Your task to perform on an android device: open app "Facebook Lite" (install if not already installed) Image 0: 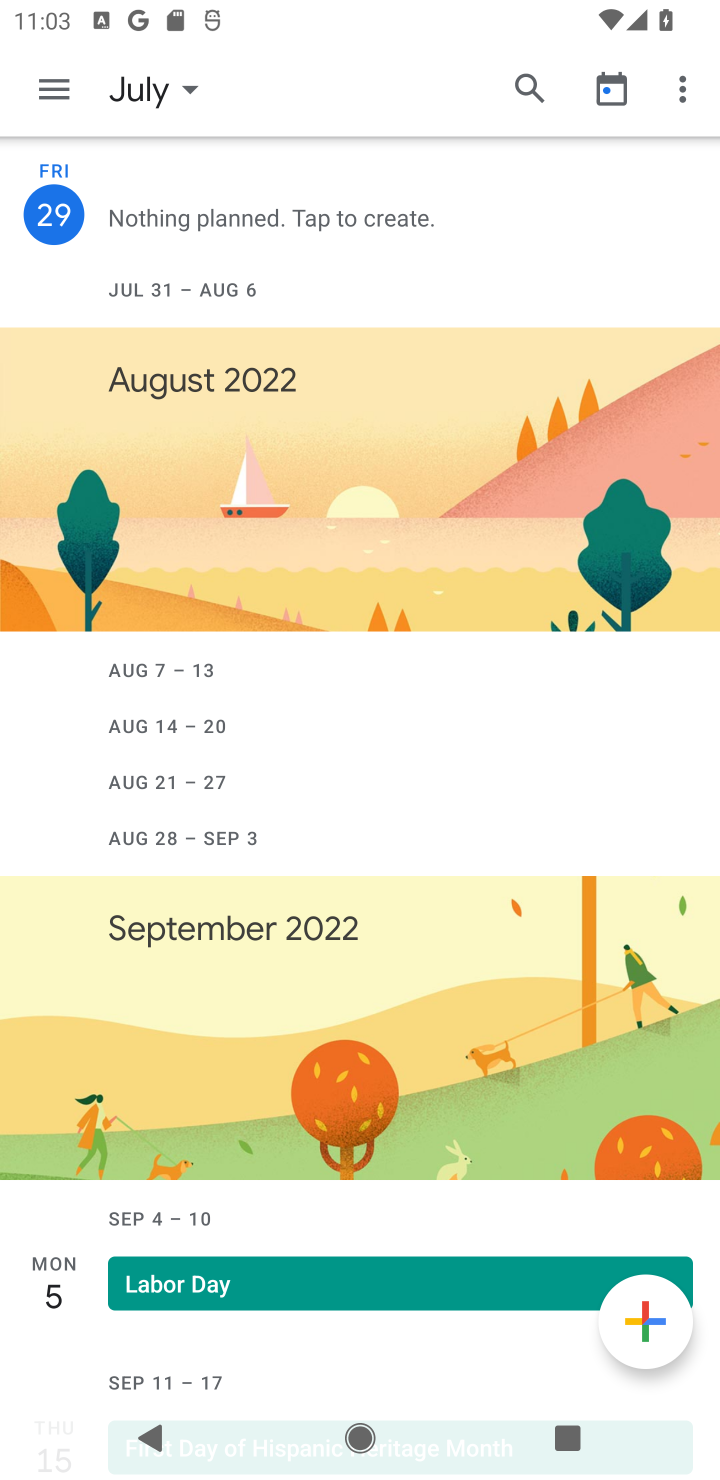
Step 0: press back button
Your task to perform on an android device: open app "Facebook Lite" (install if not already installed) Image 1: 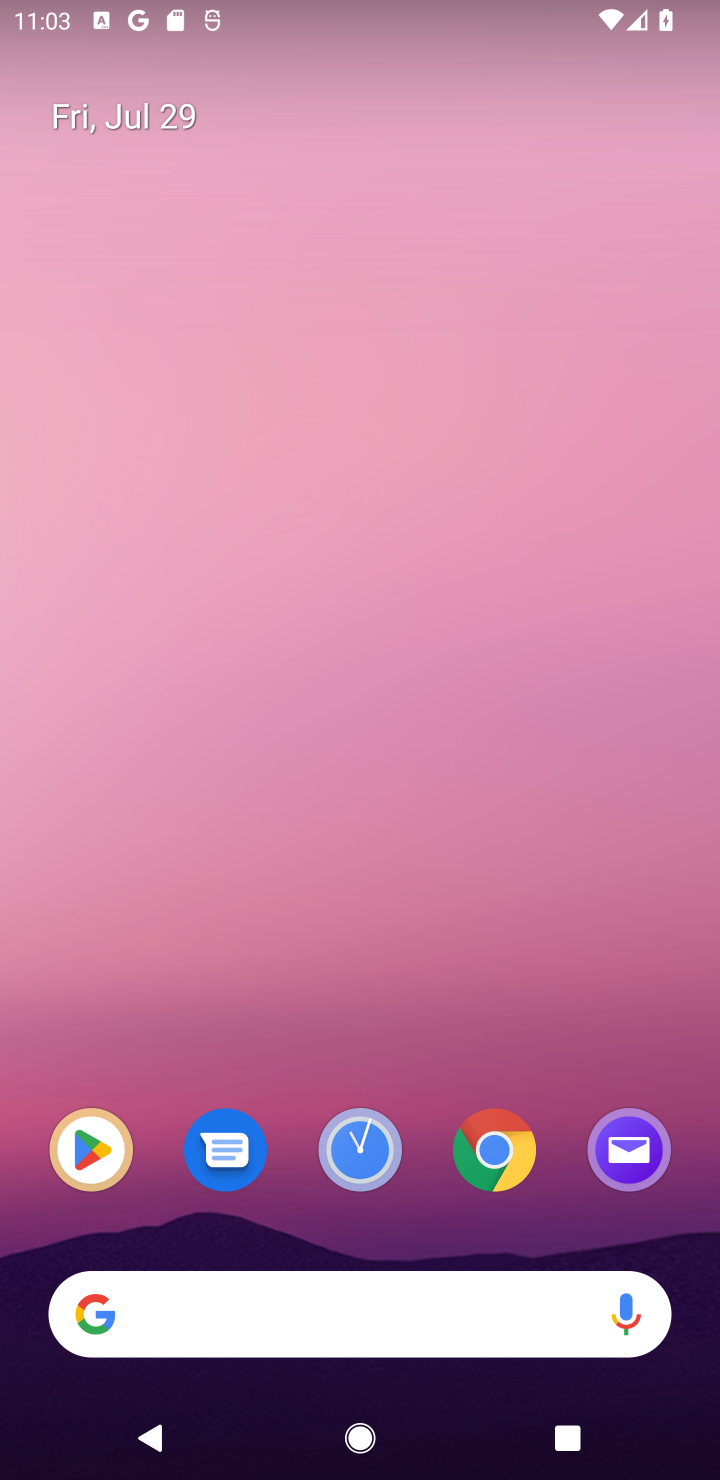
Step 1: drag from (516, 938) to (689, 58)
Your task to perform on an android device: open app "Facebook Lite" (install if not already installed) Image 2: 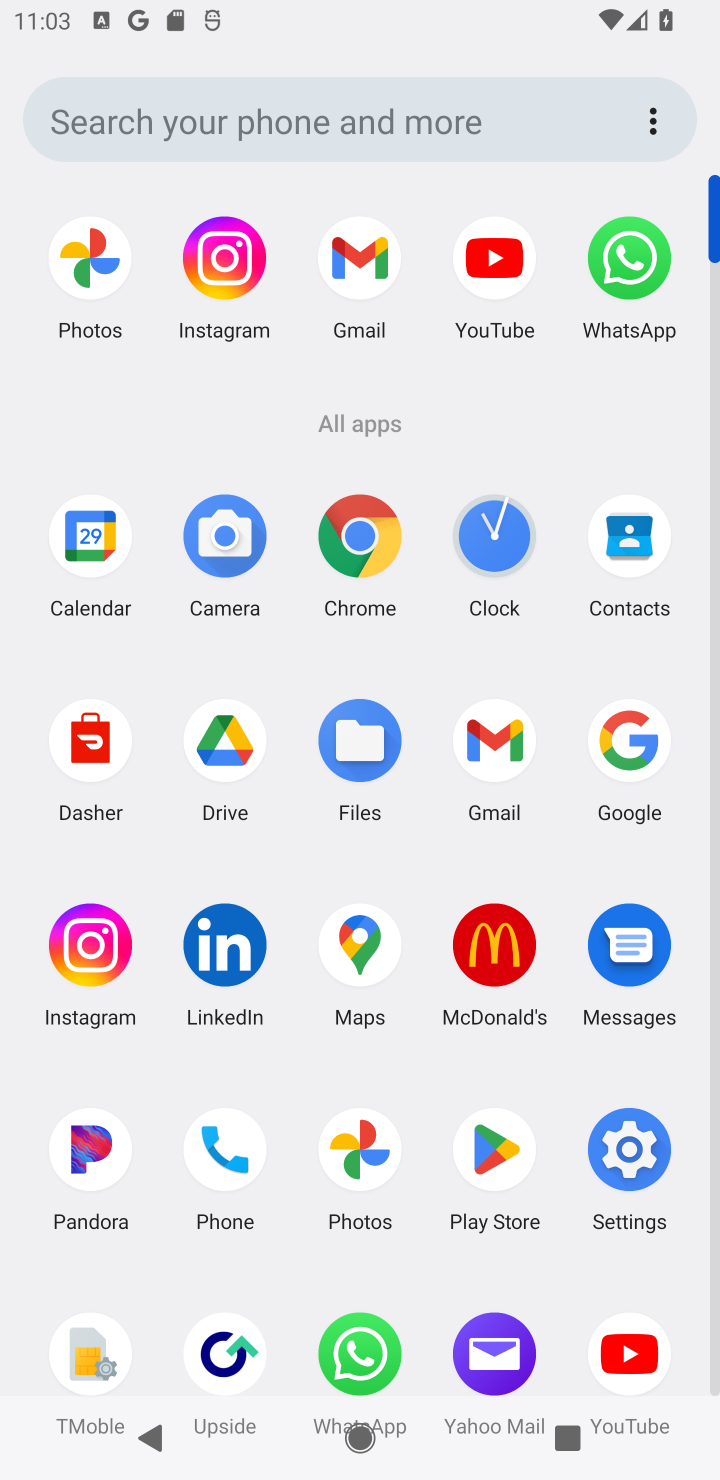
Step 2: drag from (338, 1113) to (545, 148)
Your task to perform on an android device: open app "Facebook Lite" (install if not already installed) Image 3: 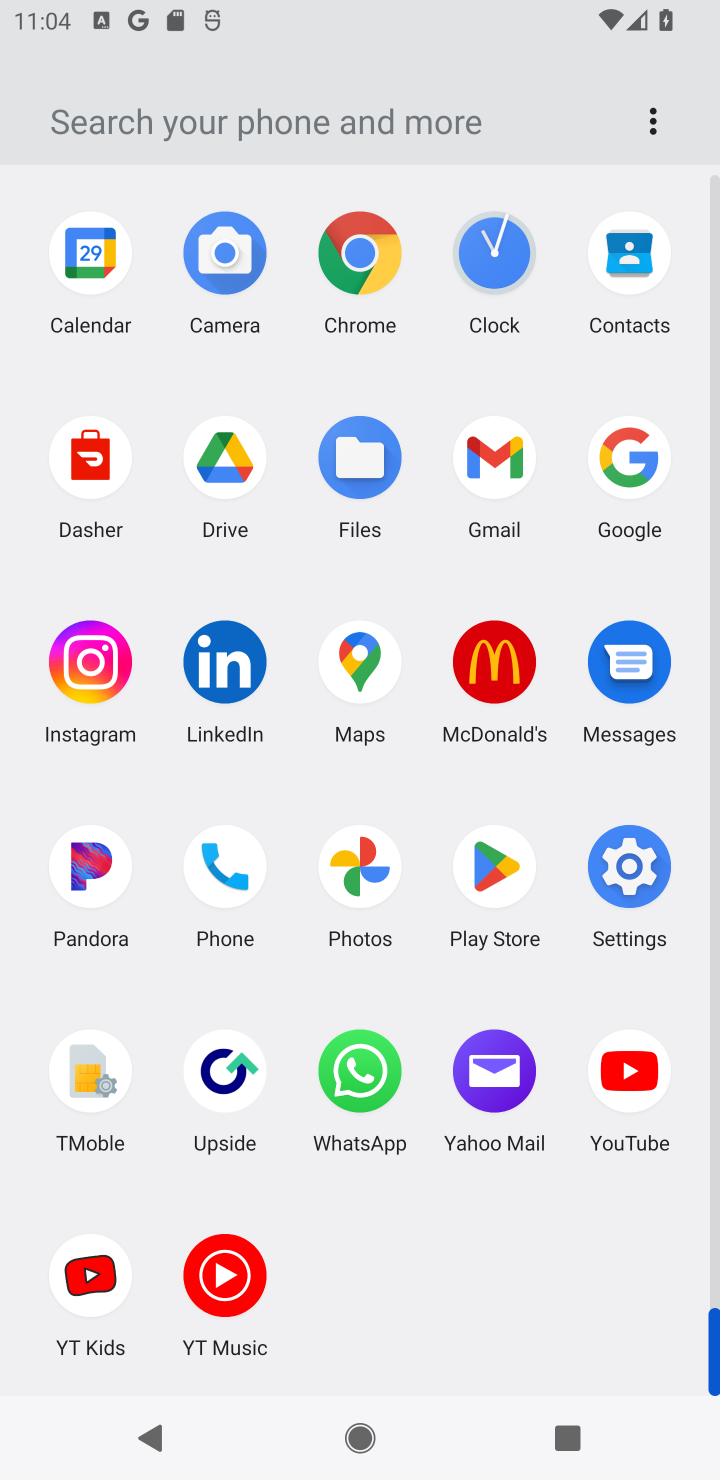
Step 3: click (497, 884)
Your task to perform on an android device: open app "Facebook Lite" (install if not already installed) Image 4: 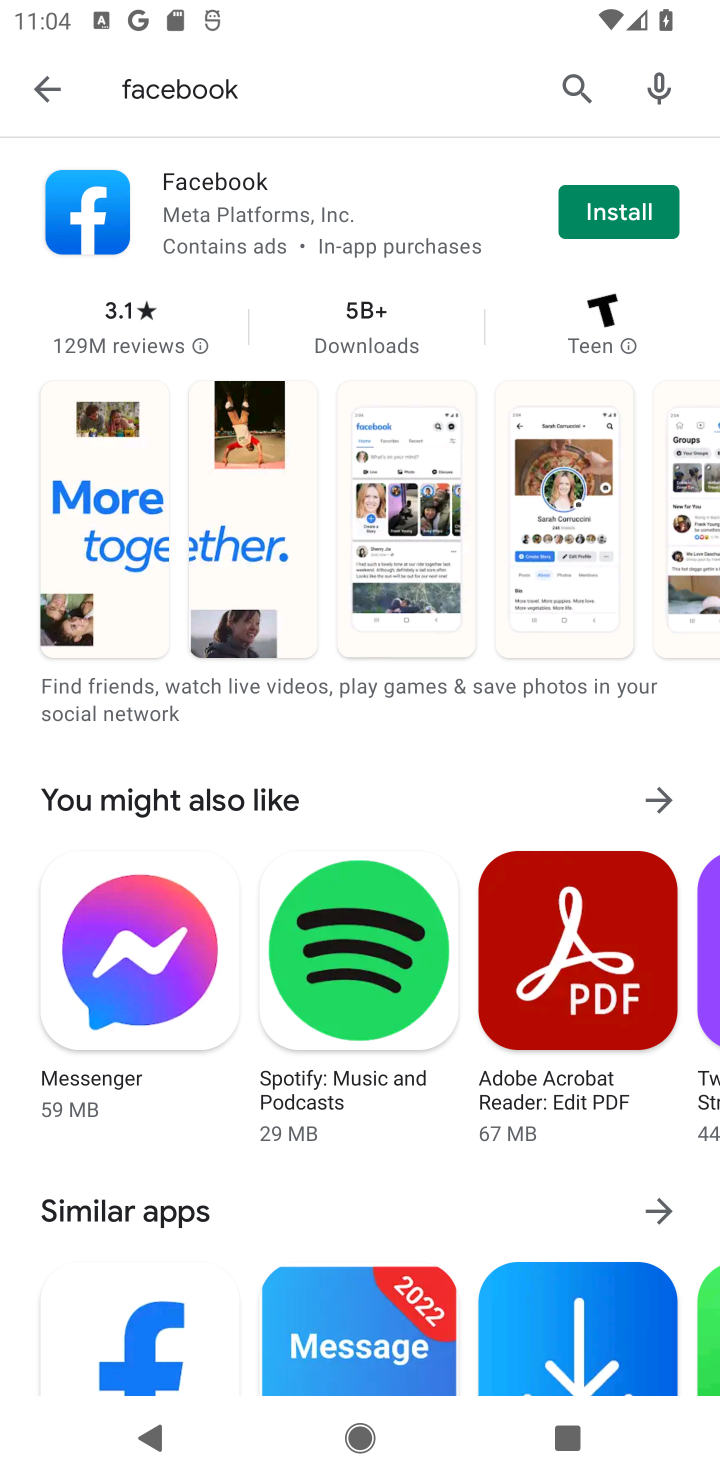
Step 4: click (602, 206)
Your task to perform on an android device: open app "Facebook Lite" (install if not already installed) Image 5: 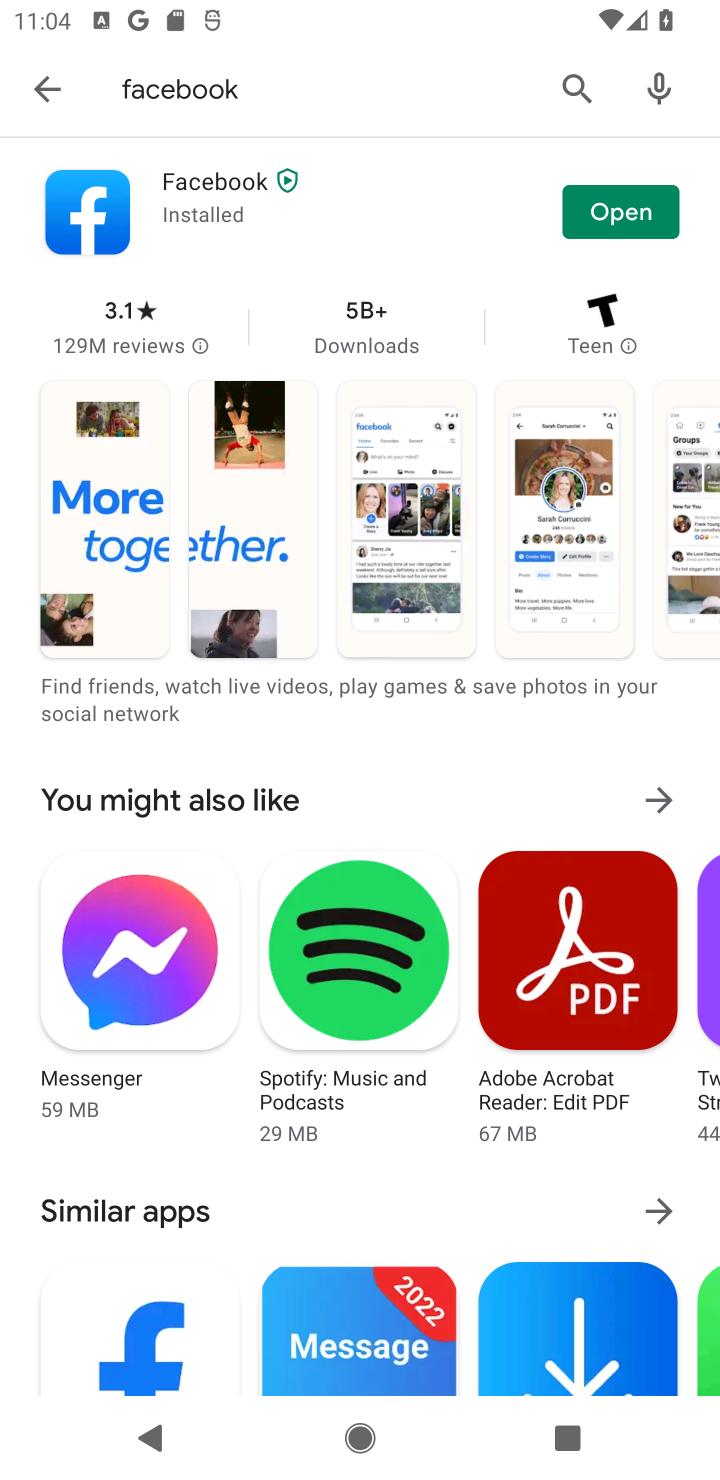
Step 5: click (631, 212)
Your task to perform on an android device: open app "Facebook Lite" (install if not already installed) Image 6: 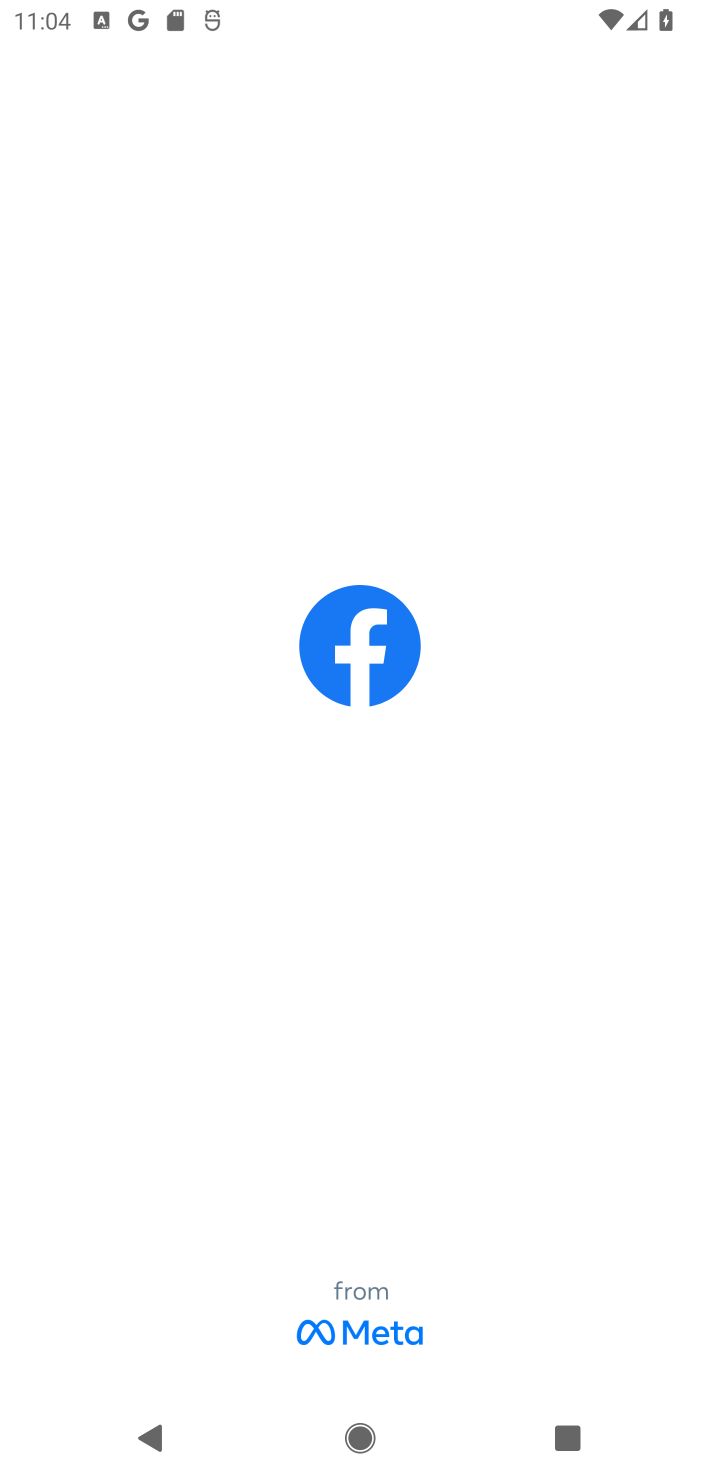
Step 6: task complete